Your task to perform on an android device: star an email in the gmail app Image 0: 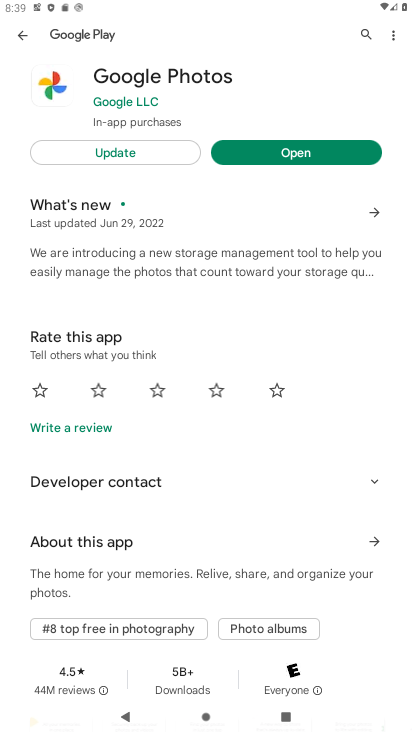
Step 0: press home button
Your task to perform on an android device: star an email in the gmail app Image 1: 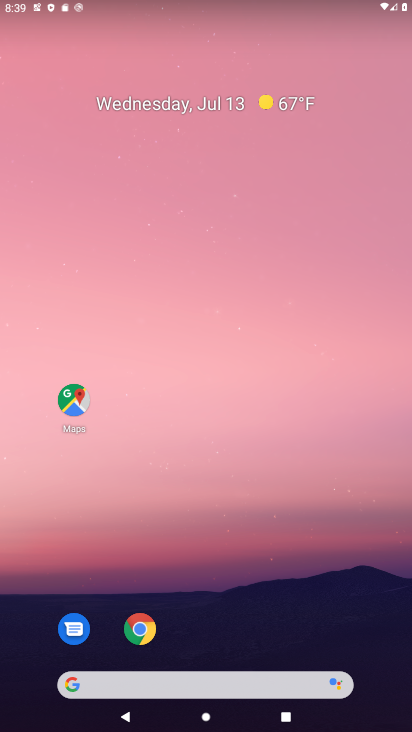
Step 1: drag from (220, 651) to (242, 0)
Your task to perform on an android device: star an email in the gmail app Image 2: 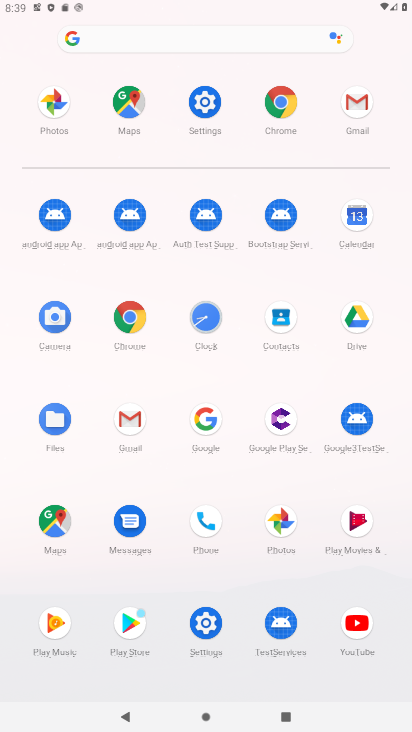
Step 2: click (121, 434)
Your task to perform on an android device: star an email in the gmail app Image 3: 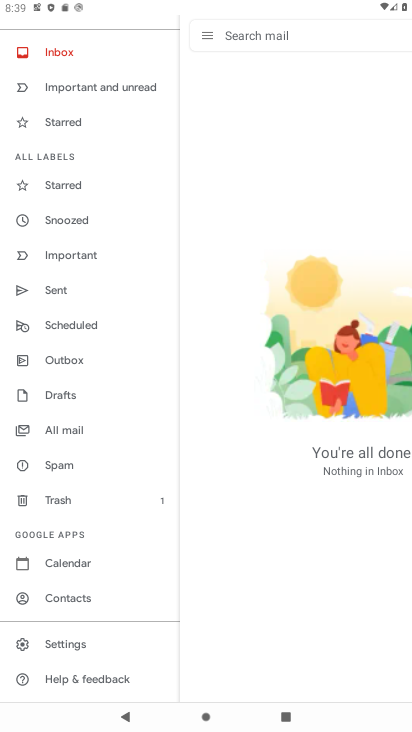
Step 3: click (306, 126)
Your task to perform on an android device: star an email in the gmail app Image 4: 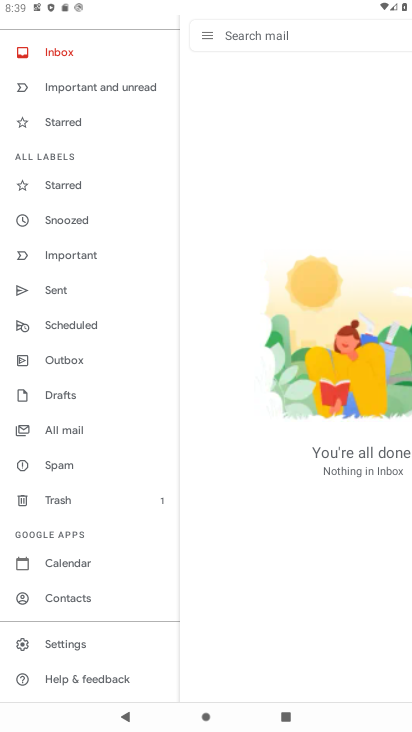
Step 4: task complete